Your task to perform on an android device: Go to Google Image 0: 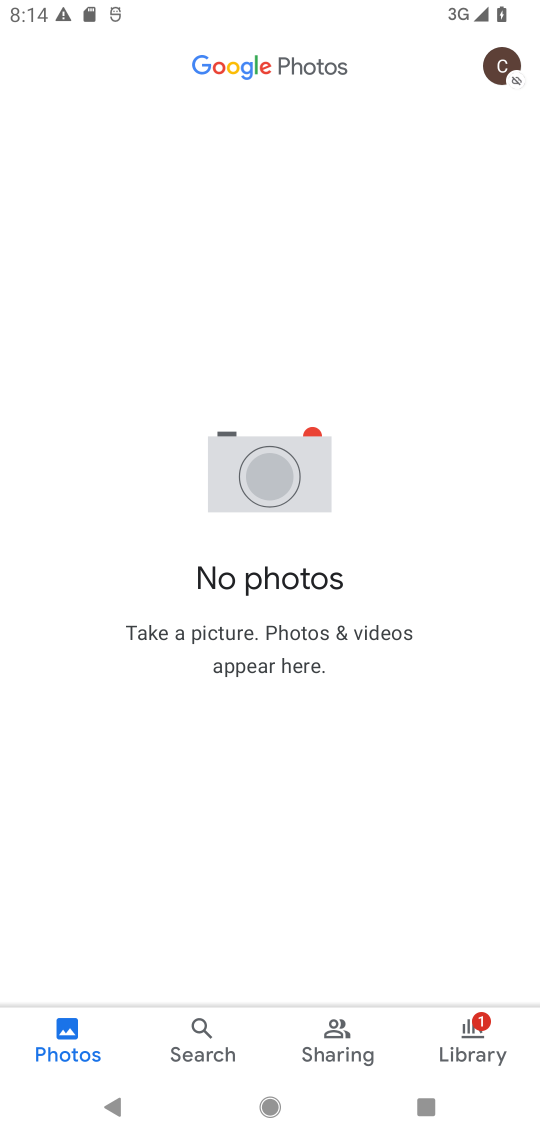
Step 0: press home button
Your task to perform on an android device: Go to Google Image 1: 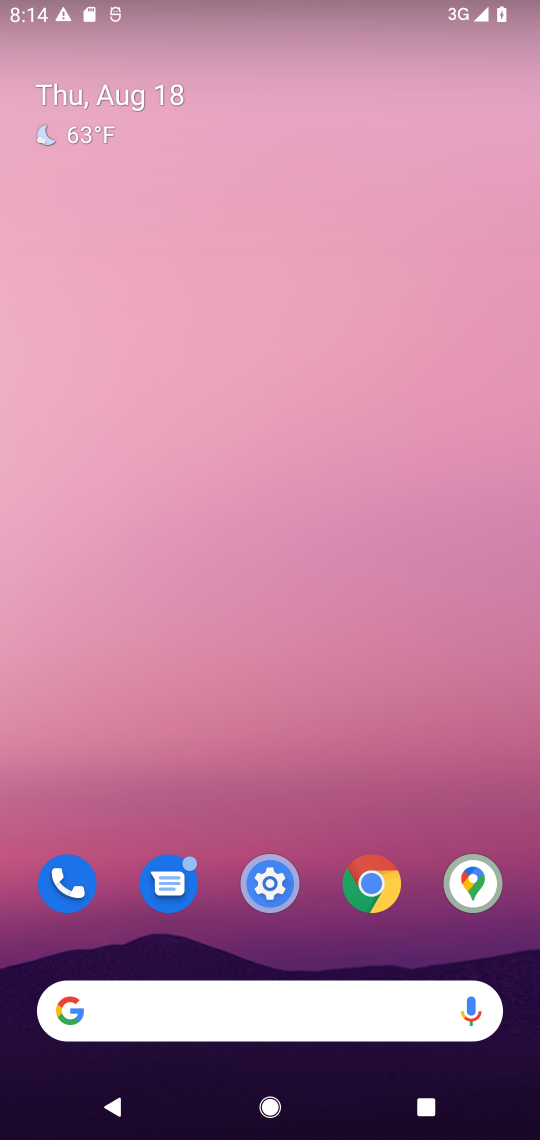
Step 1: click (124, 1028)
Your task to perform on an android device: Go to Google Image 2: 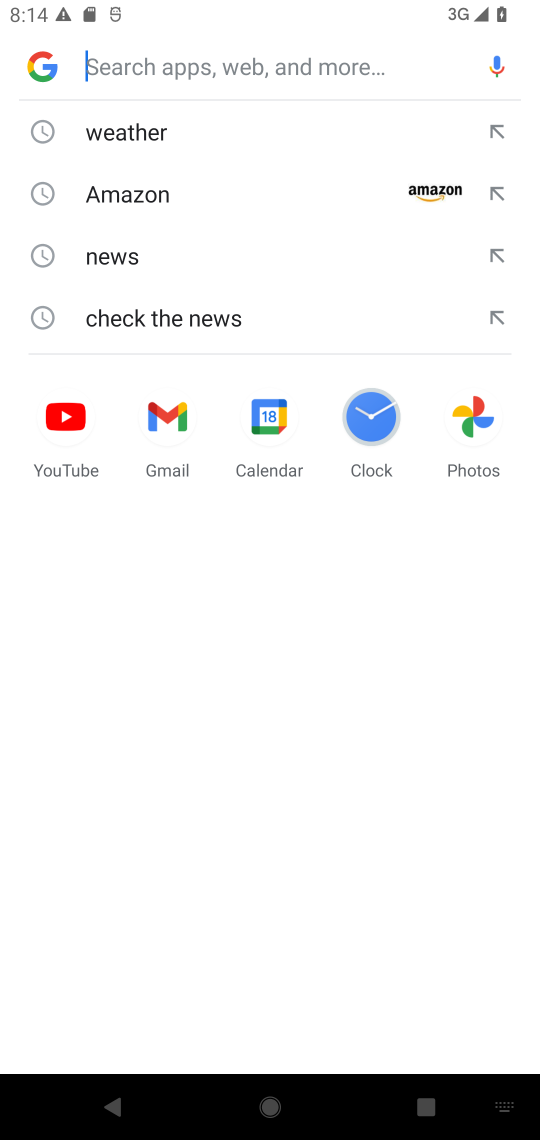
Step 2: type "Google"
Your task to perform on an android device: Go to Google Image 3: 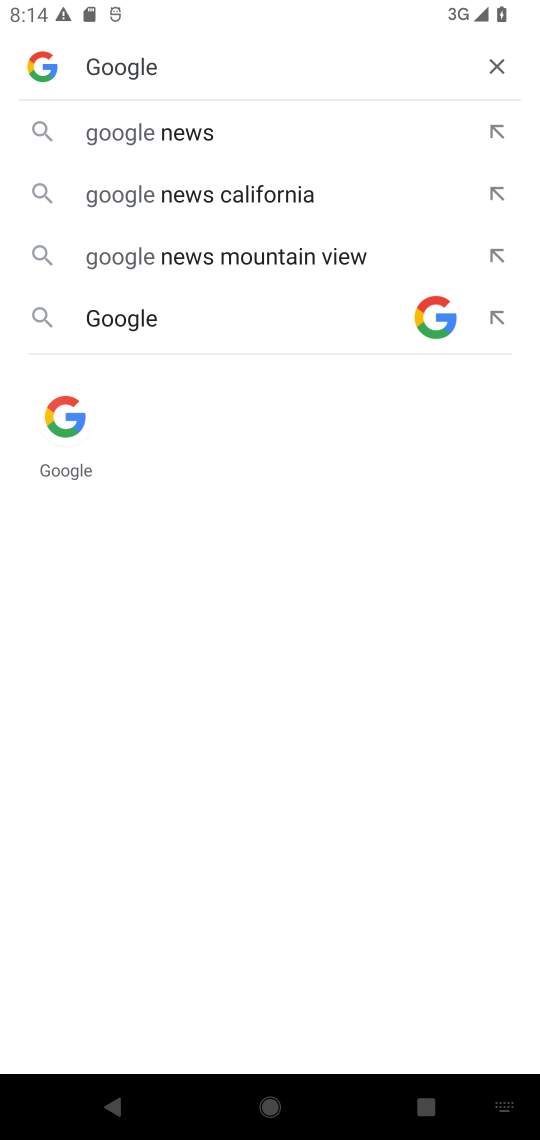
Step 3: type ""
Your task to perform on an android device: Go to Google Image 4: 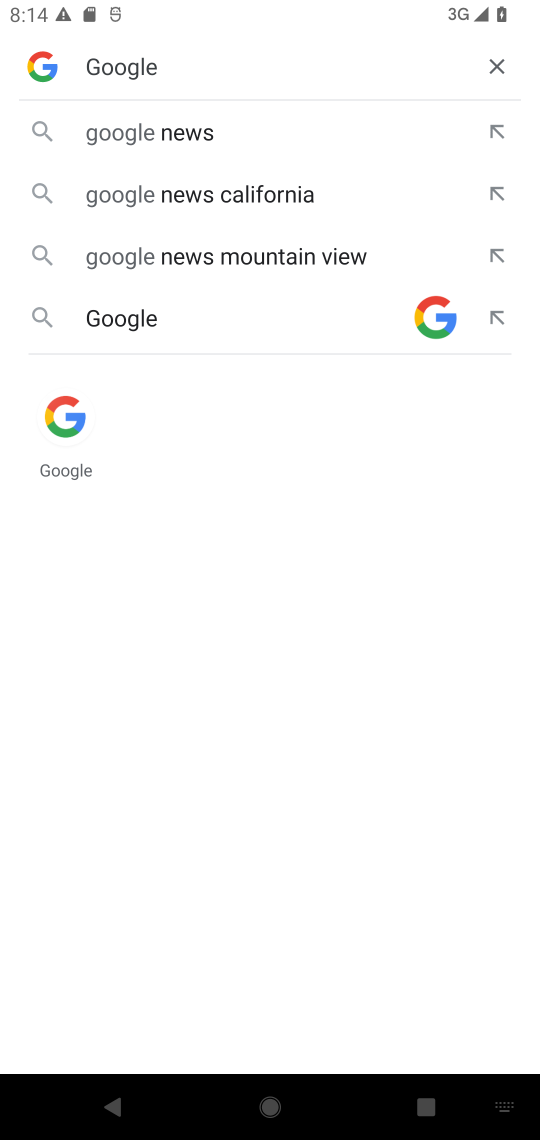
Step 4: type ""
Your task to perform on an android device: Go to Google Image 5: 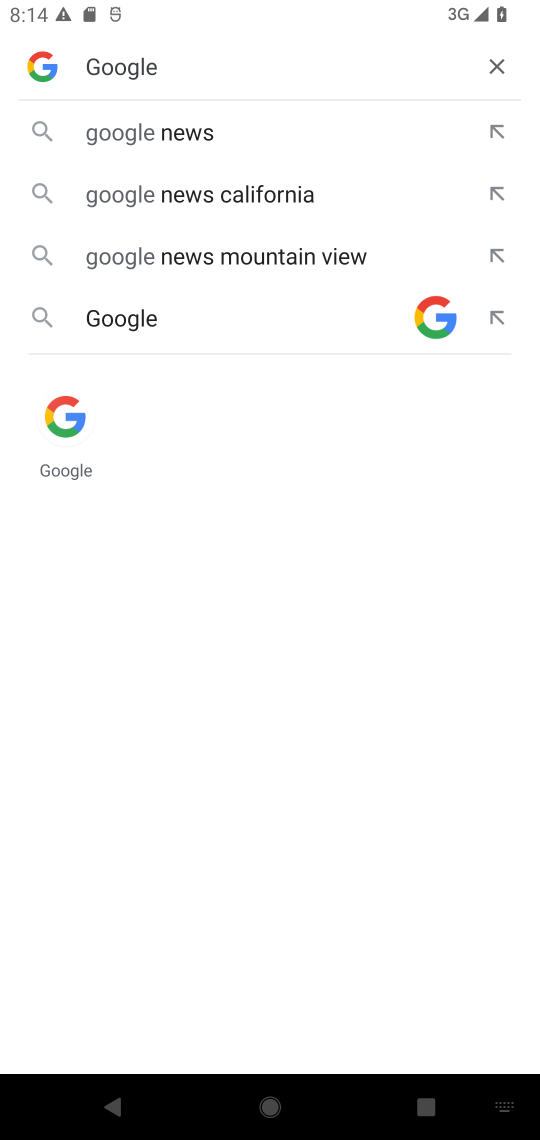
Step 5: click (100, 313)
Your task to perform on an android device: Go to Google Image 6: 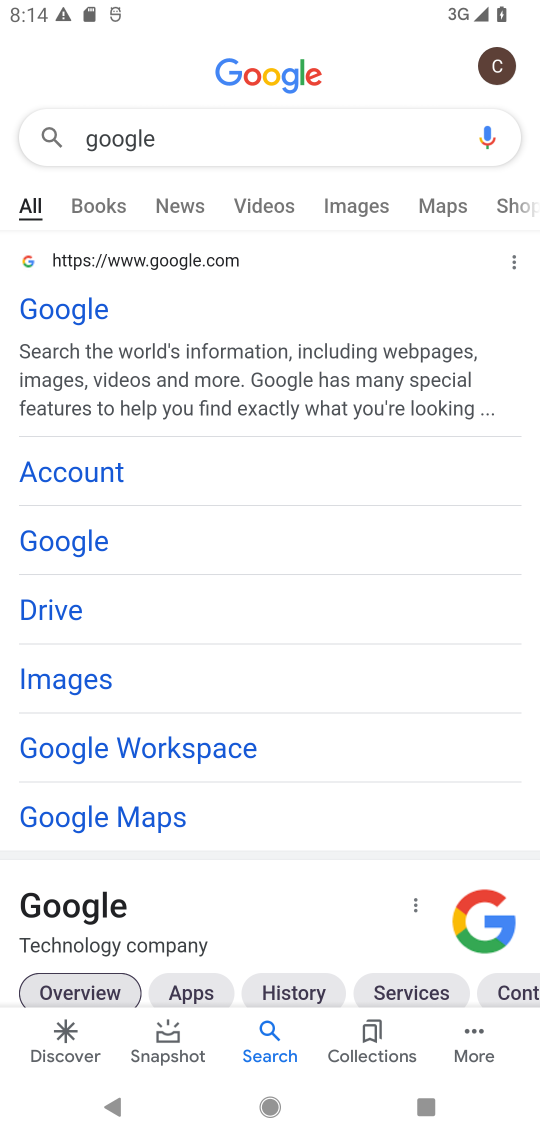
Step 6: task complete